Your task to perform on an android device: change the clock display to digital Image 0: 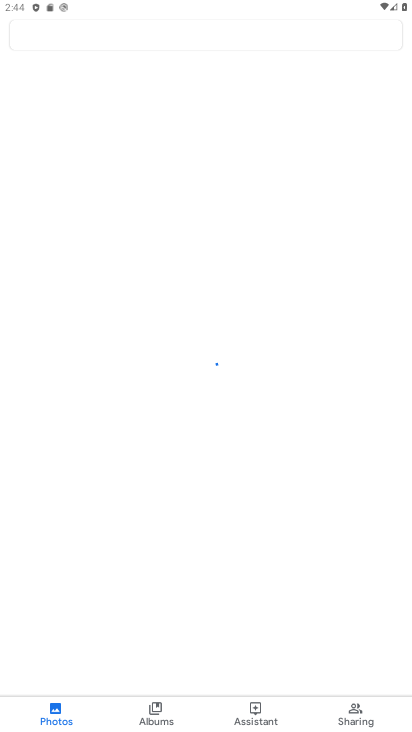
Step 0: press home button
Your task to perform on an android device: change the clock display to digital Image 1: 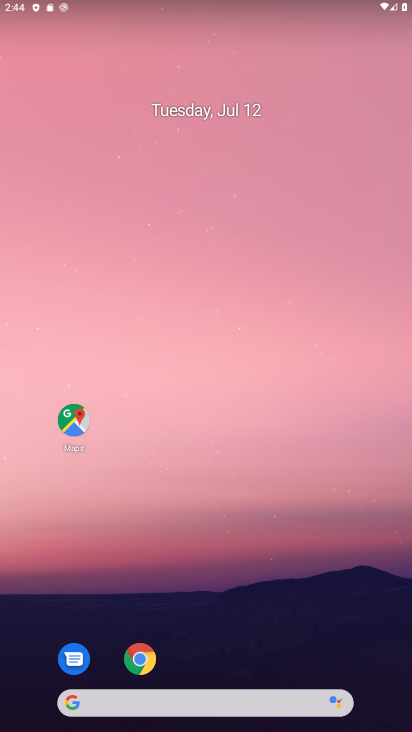
Step 1: drag from (229, 670) to (323, 215)
Your task to perform on an android device: change the clock display to digital Image 2: 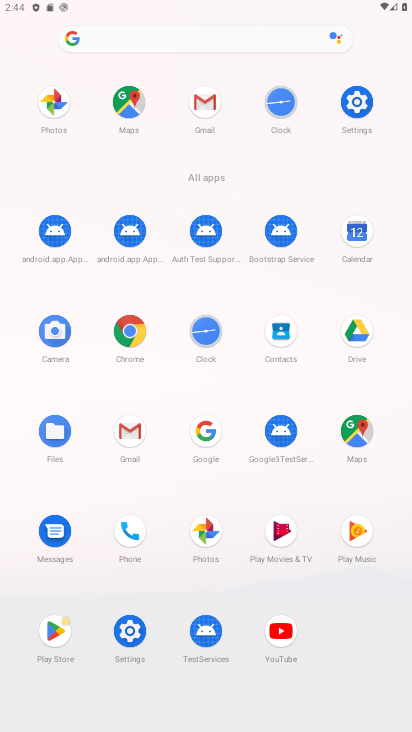
Step 2: click (214, 331)
Your task to perform on an android device: change the clock display to digital Image 3: 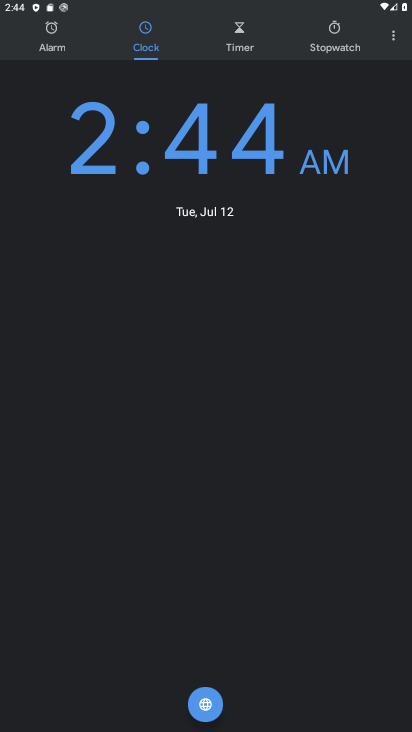
Step 3: click (392, 33)
Your task to perform on an android device: change the clock display to digital Image 4: 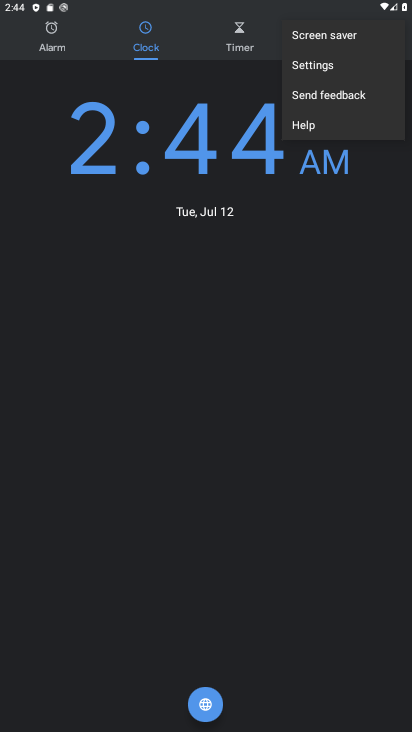
Step 4: click (304, 68)
Your task to perform on an android device: change the clock display to digital Image 5: 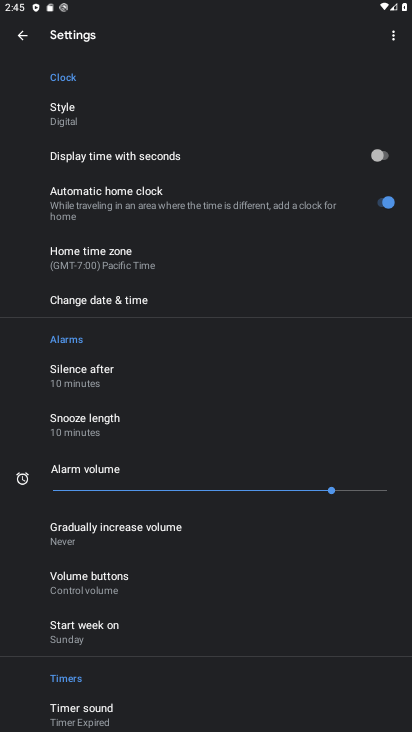
Step 5: task complete